Your task to perform on an android device: Search for the best coffee tables on Crate & Barrel Image 0: 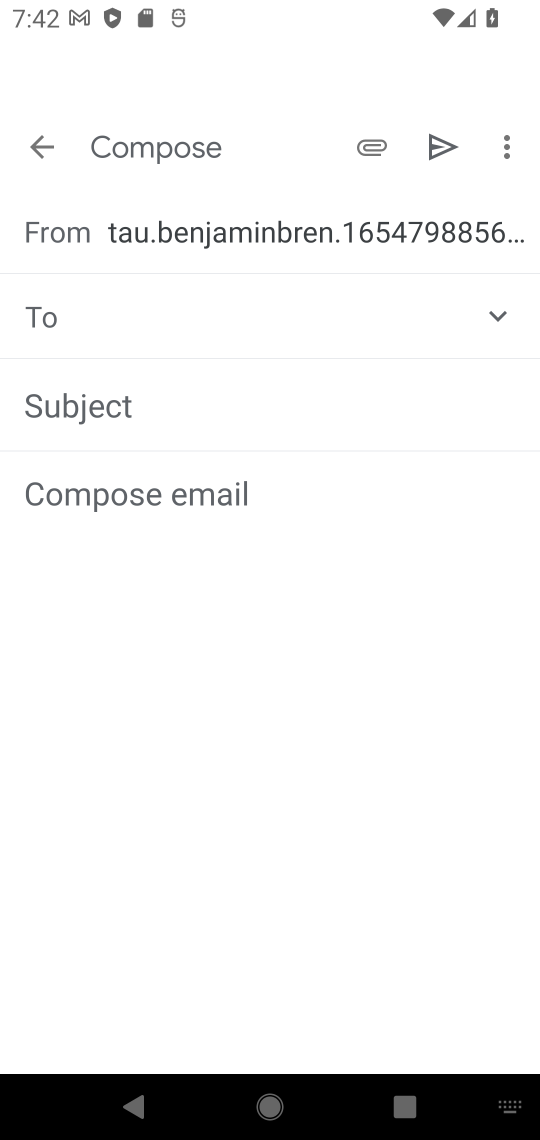
Step 0: press home button
Your task to perform on an android device: Search for the best coffee tables on Crate & Barrel Image 1: 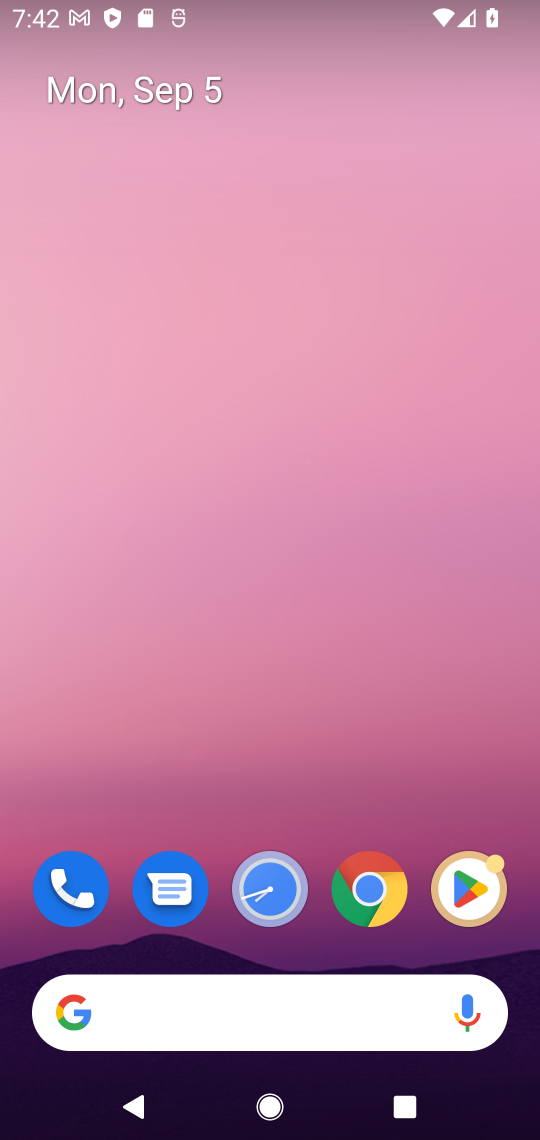
Step 1: click (212, 1029)
Your task to perform on an android device: Search for the best coffee tables on Crate & Barrel Image 2: 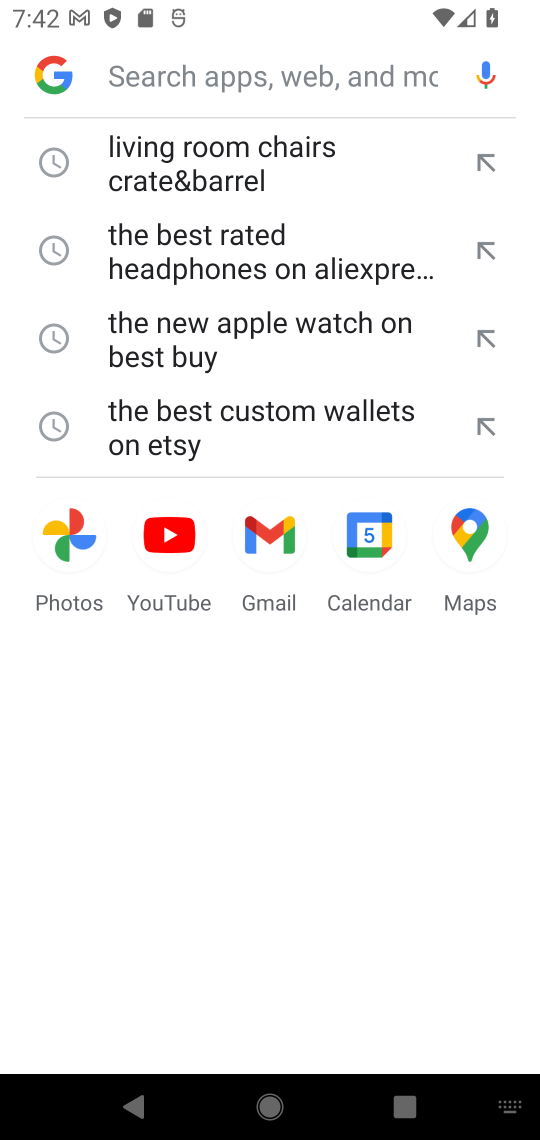
Step 2: type " the best coffee tables on Crate & Barrel"
Your task to perform on an android device: Search for the best coffee tables on Crate & Barrel Image 3: 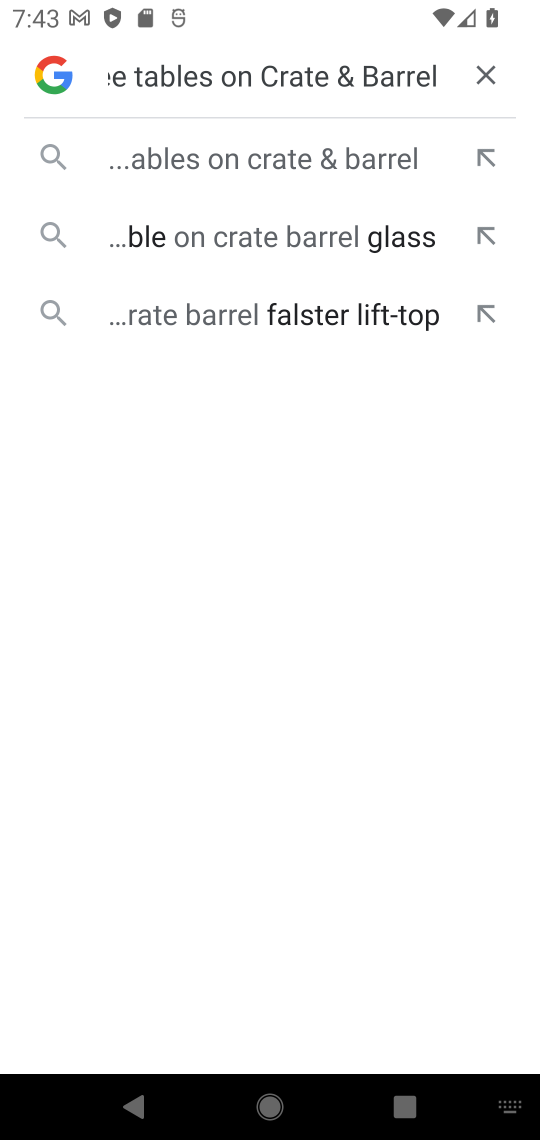
Step 3: click (348, 154)
Your task to perform on an android device: Search for the best coffee tables on Crate & Barrel Image 4: 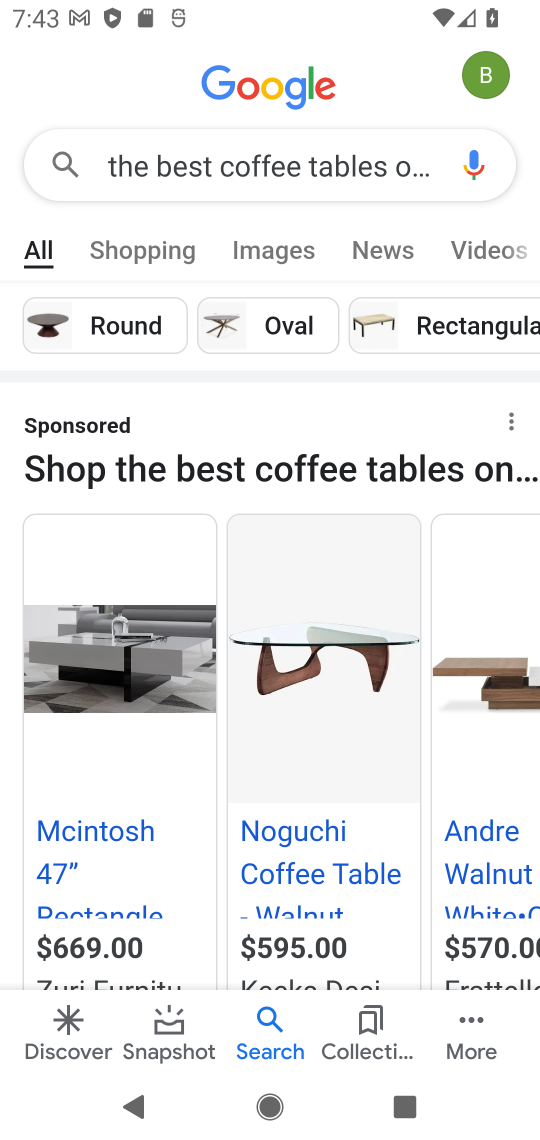
Step 4: task complete